Your task to perform on an android device: Search for sushi restaurants on Maps Image 0: 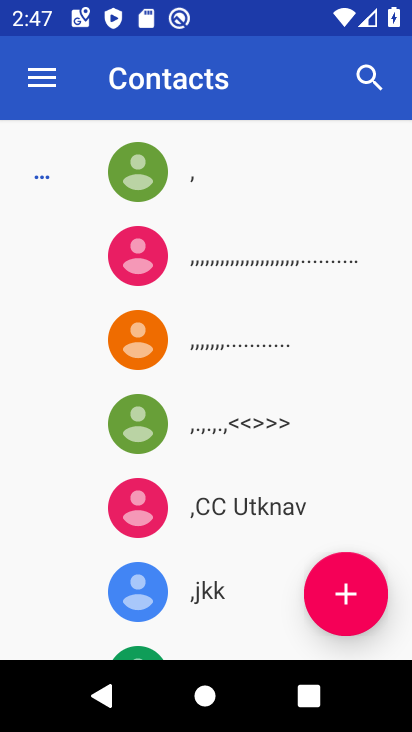
Step 0: press home button
Your task to perform on an android device: Search for sushi restaurants on Maps Image 1: 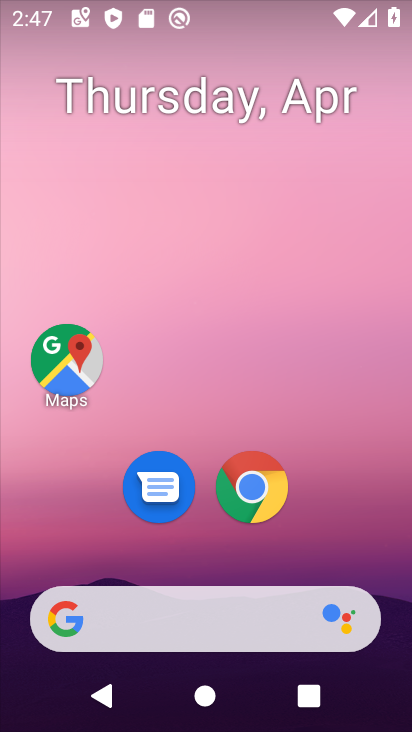
Step 1: drag from (302, 571) to (276, 75)
Your task to perform on an android device: Search for sushi restaurants on Maps Image 2: 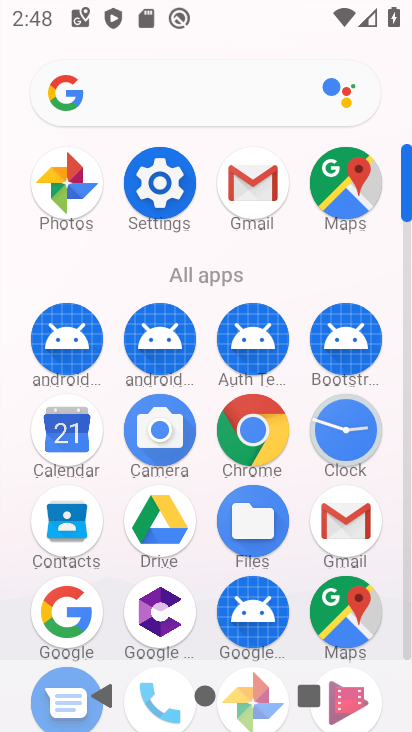
Step 2: click (349, 192)
Your task to perform on an android device: Search for sushi restaurants on Maps Image 3: 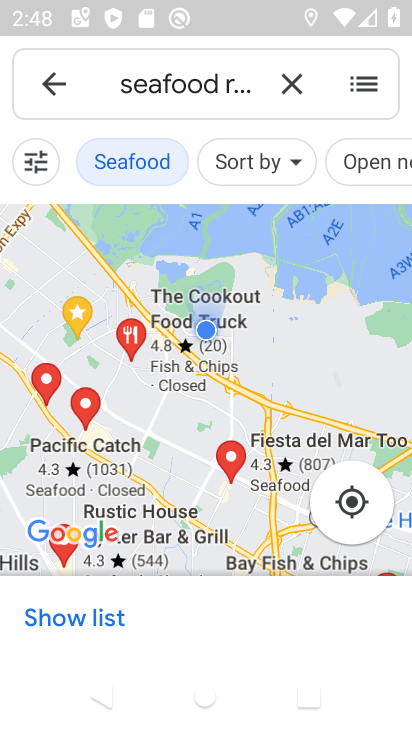
Step 3: click (288, 92)
Your task to perform on an android device: Search for sushi restaurants on Maps Image 4: 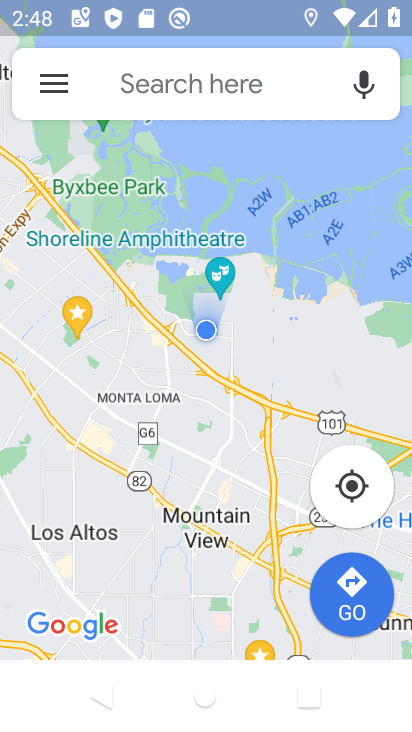
Step 4: click (253, 75)
Your task to perform on an android device: Search for sushi restaurants on Maps Image 5: 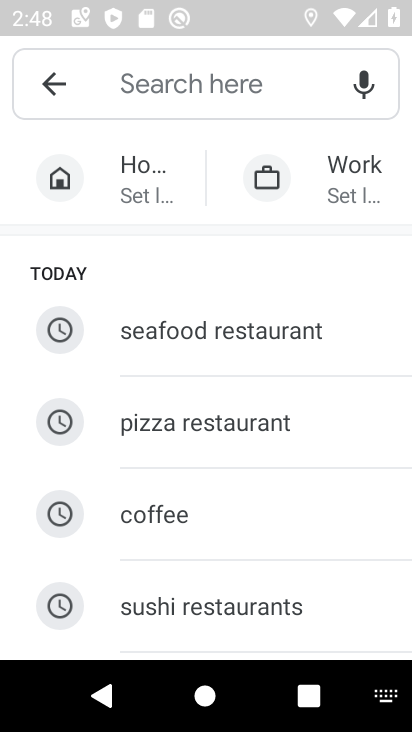
Step 5: click (224, 599)
Your task to perform on an android device: Search for sushi restaurants on Maps Image 6: 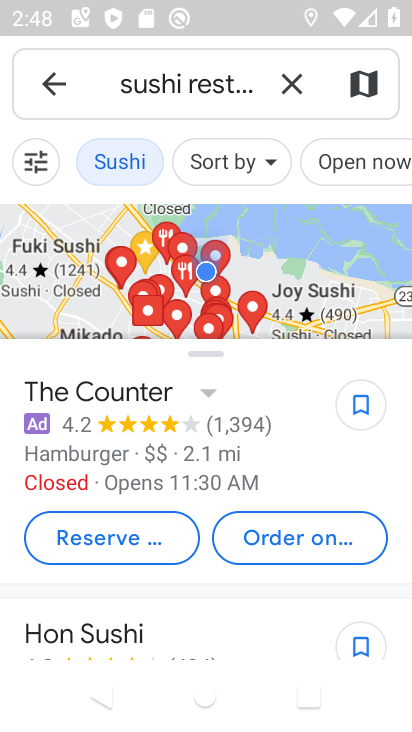
Step 6: task complete